Your task to perform on an android device: toggle sleep mode Image 0: 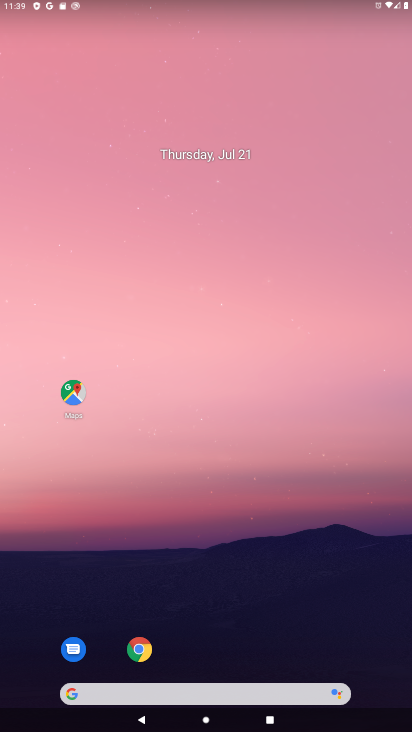
Step 0: drag from (283, 603) to (283, 3)
Your task to perform on an android device: toggle sleep mode Image 1: 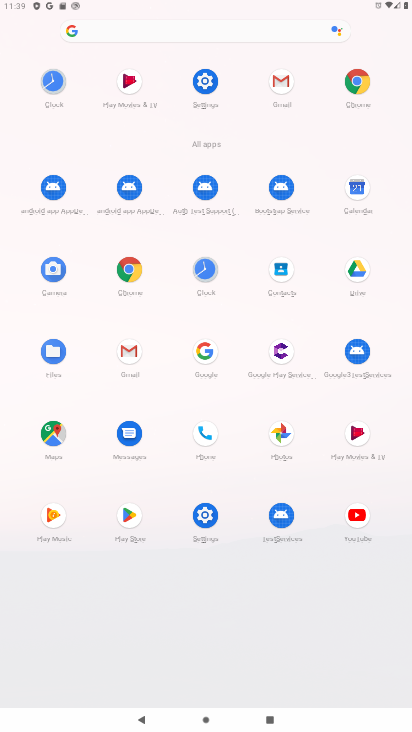
Step 1: click (208, 84)
Your task to perform on an android device: toggle sleep mode Image 2: 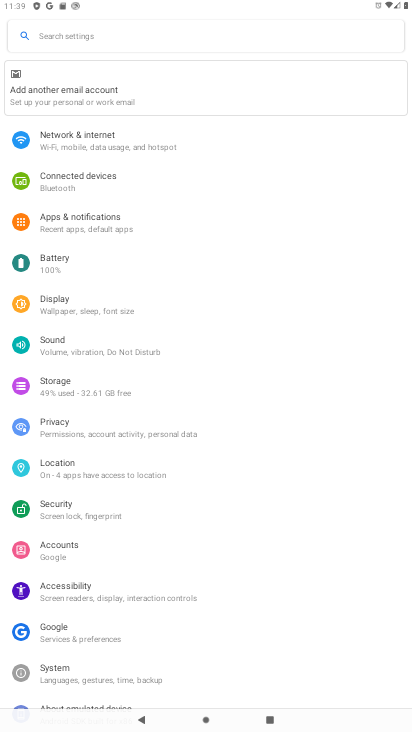
Step 2: click (102, 302)
Your task to perform on an android device: toggle sleep mode Image 3: 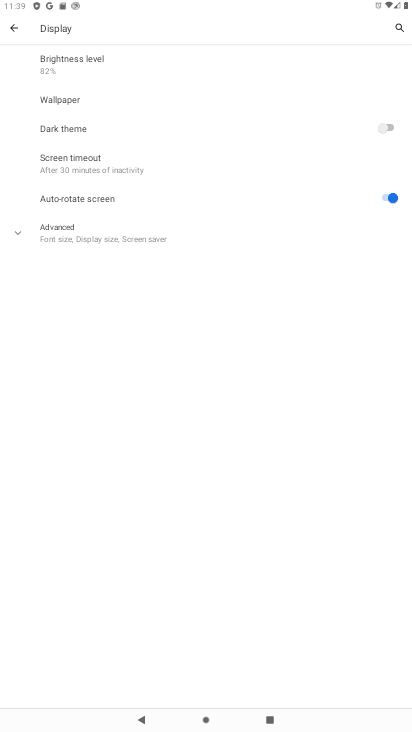
Step 3: click (120, 167)
Your task to perform on an android device: toggle sleep mode Image 4: 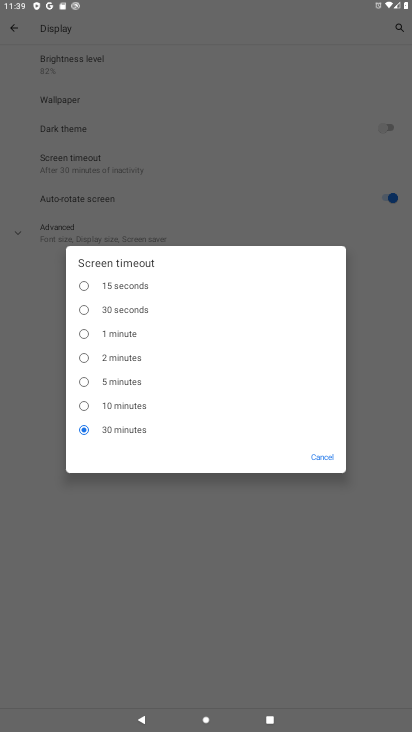
Step 4: click (131, 407)
Your task to perform on an android device: toggle sleep mode Image 5: 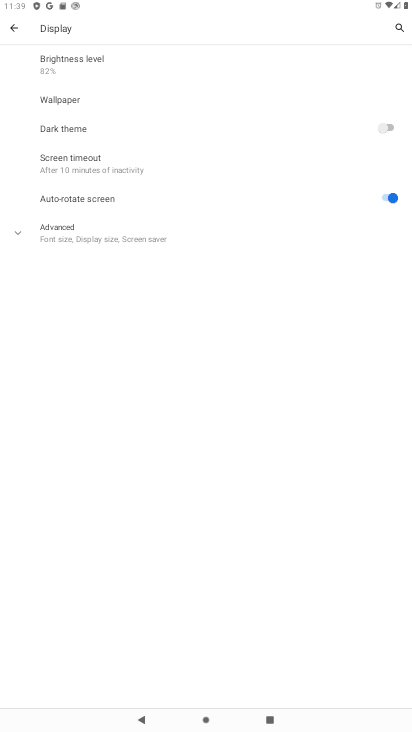
Step 5: task complete